Your task to perform on an android device: What is the recent news? Image 0: 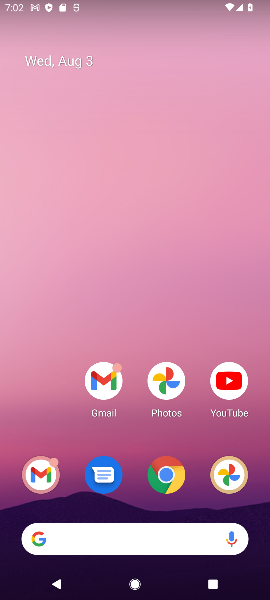
Step 0: drag from (3, 352) to (268, 434)
Your task to perform on an android device: What is the recent news? Image 1: 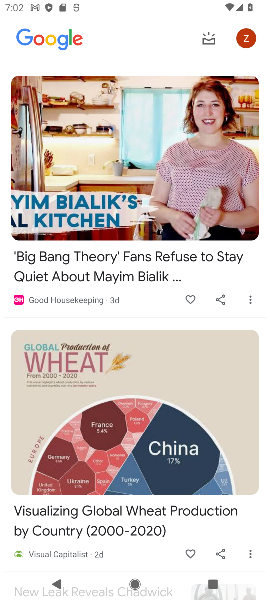
Step 1: task complete